Your task to perform on an android device: see tabs open on other devices in the chrome app Image 0: 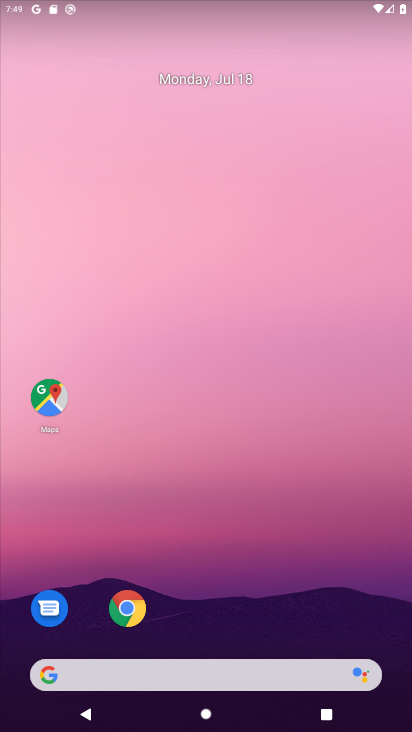
Step 0: drag from (228, 645) to (217, 94)
Your task to perform on an android device: see tabs open on other devices in the chrome app Image 1: 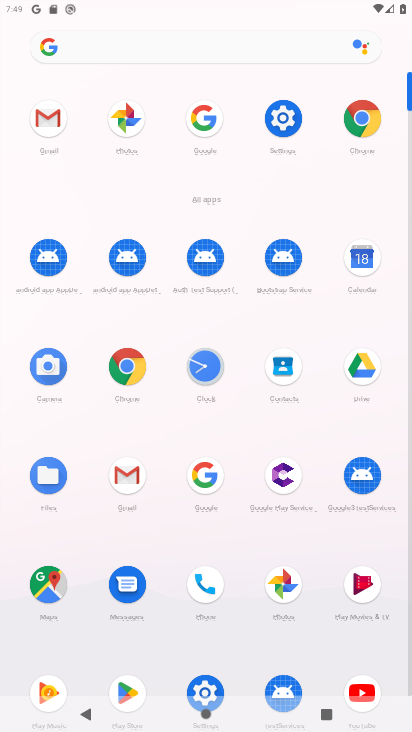
Step 1: click (136, 363)
Your task to perform on an android device: see tabs open on other devices in the chrome app Image 2: 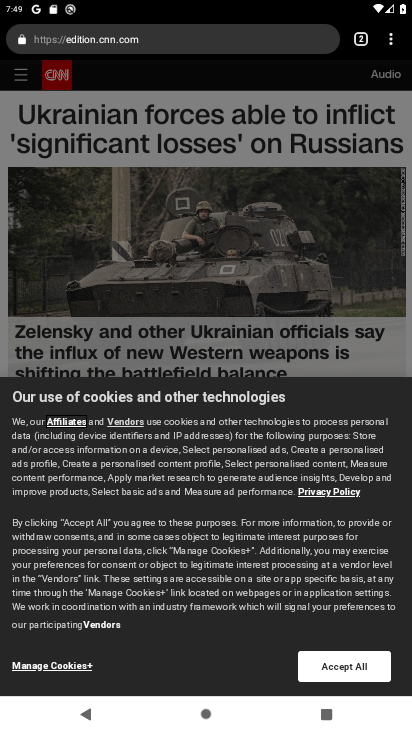
Step 2: click (352, 36)
Your task to perform on an android device: see tabs open on other devices in the chrome app Image 3: 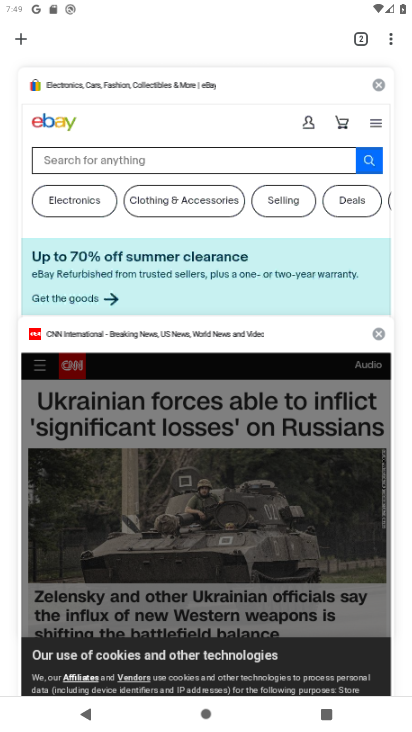
Step 3: click (31, 40)
Your task to perform on an android device: see tabs open on other devices in the chrome app Image 4: 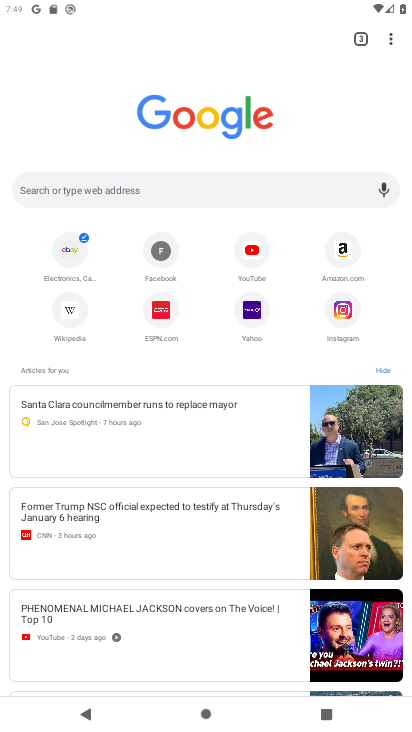
Step 4: task complete